Your task to perform on an android device: turn vacation reply on in the gmail app Image 0: 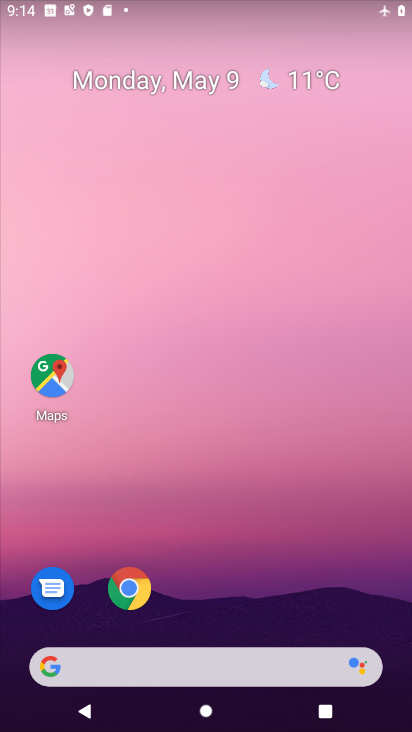
Step 0: drag from (171, 658) to (363, 106)
Your task to perform on an android device: turn vacation reply on in the gmail app Image 1: 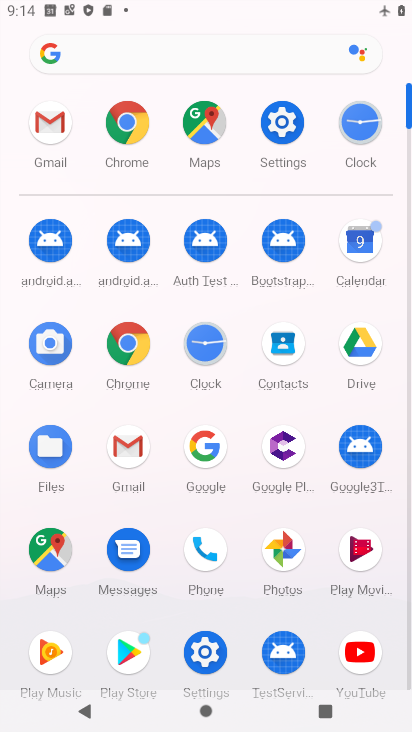
Step 1: click (58, 129)
Your task to perform on an android device: turn vacation reply on in the gmail app Image 2: 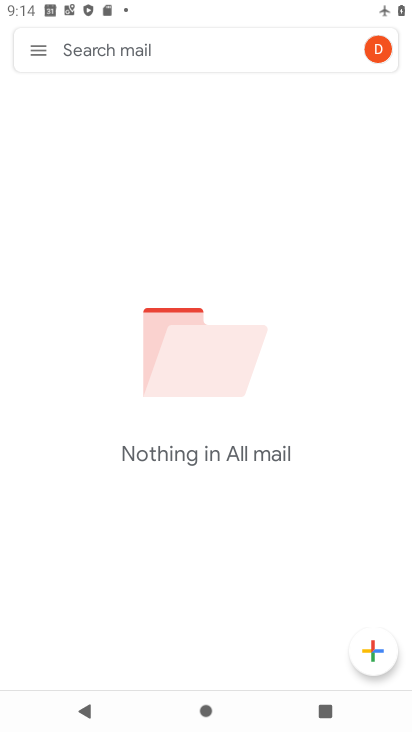
Step 2: click (38, 45)
Your task to perform on an android device: turn vacation reply on in the gmail app Image 3: 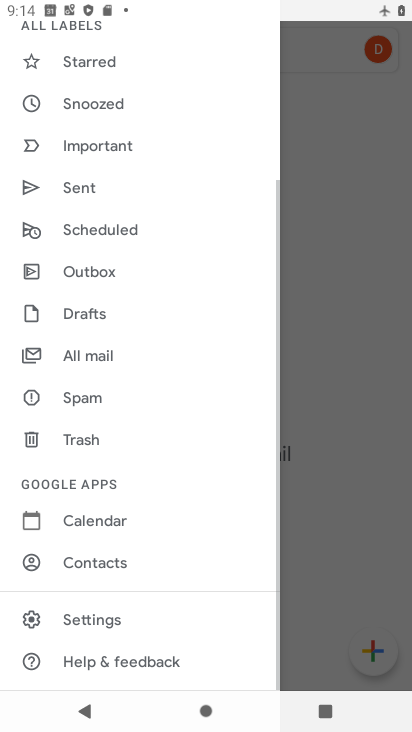
Step 3: click (105, 620)
Your task to perform on an android device: turn vacation reply on in the gmail app Image 4: 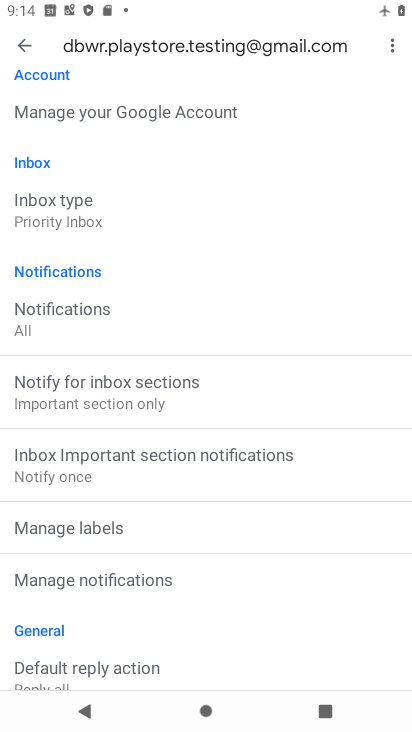
Step 4: drag from (149, 627) to (286, 146)
Your task to perform on an android device: turn vacation reply on in the gmail app Image 5: 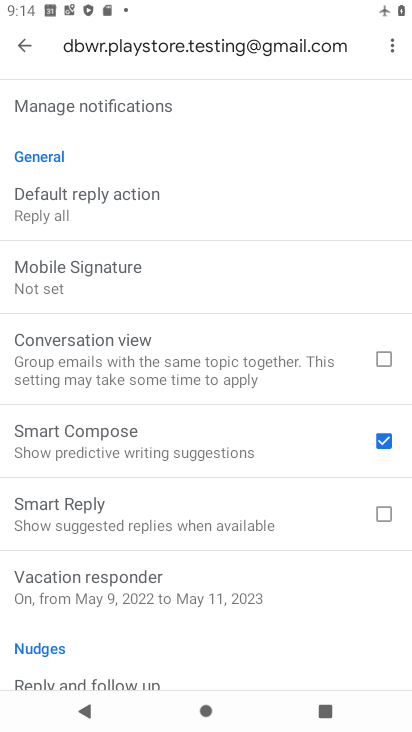
Step 5: click (140, 590)
Your task to perform on an android device: turn vacation reply on in the gmail app Image 6: 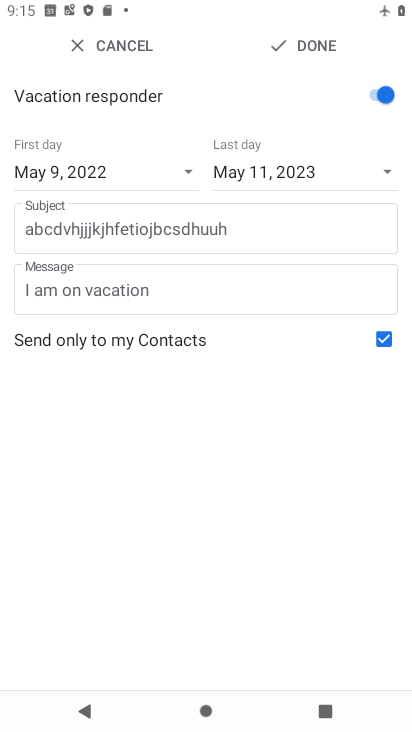
Step 6: task complete